Your task to perform on an android device: turn off improve location accuracy Image 0: 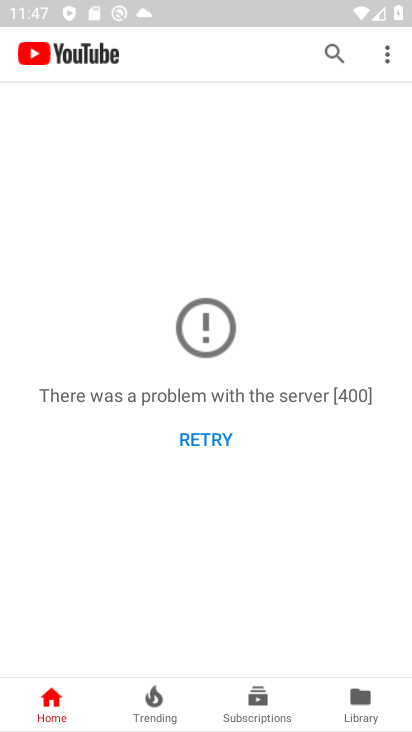
Step 0: press home button
Your task to perform on an android device: turn off improve location accuracy Image 1: 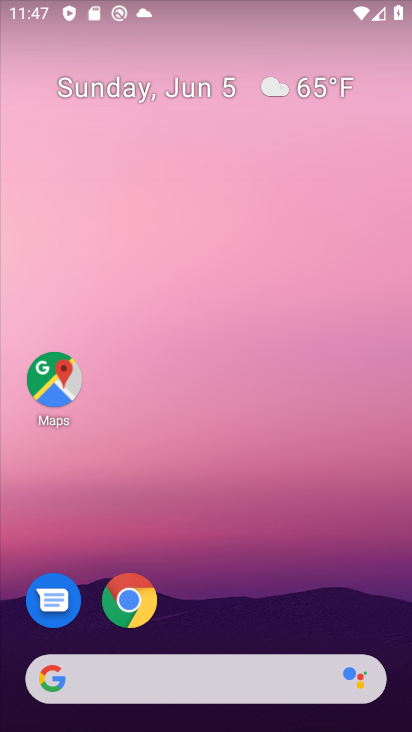
Step 1: drag from (399, 699) to (350, 145)
Your task to perform on an android device: turn off improve location accuracy Image 2: 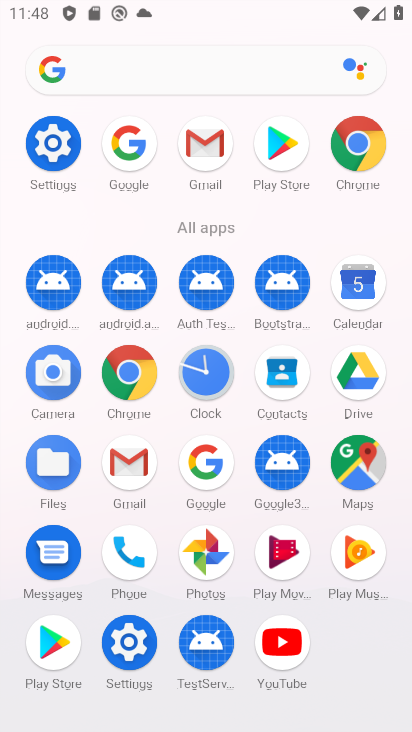
Step 2: click (133, 634)
Your task to perform on an android device: turn off improve location accuracy Image 3: 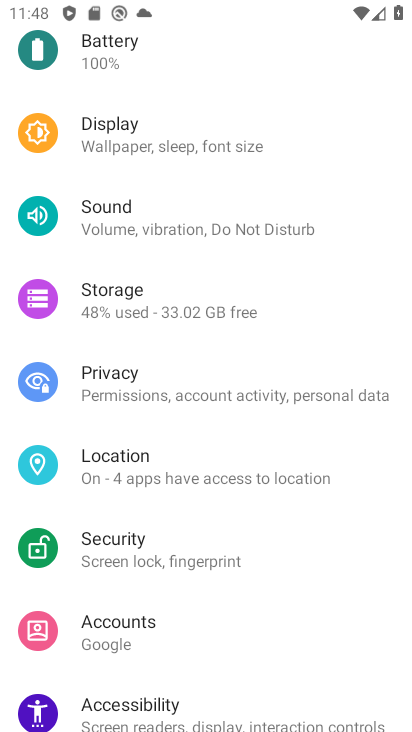
Step 3: drag from (265, 618) to (283, 273)
Your task to perform on an android device: turn off improve location accuracy Image 4: 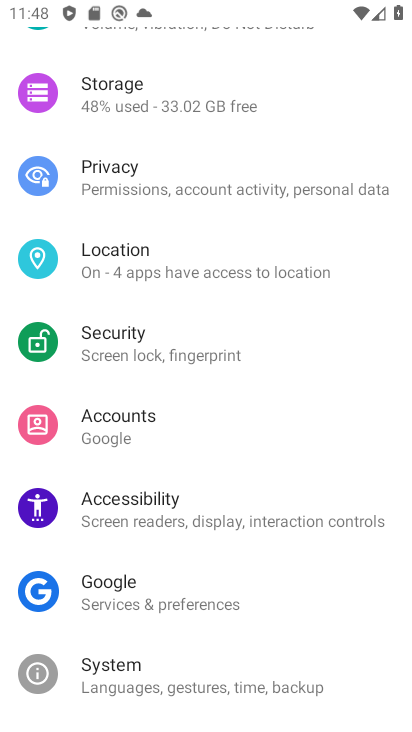
Step 4: drag from (302, 675) to (294, 236)
Your task to perform on an android device: turn off improve location accuracy Image 5: 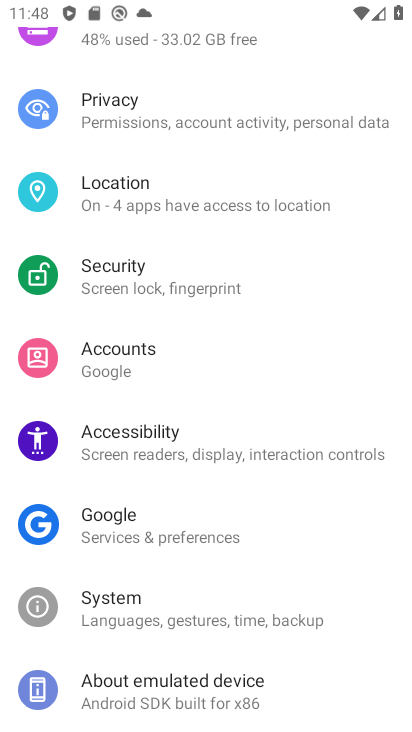
Step 5: click (167, 200)
Your task to perform on an android device: turn off improve location accuracy Image 6: 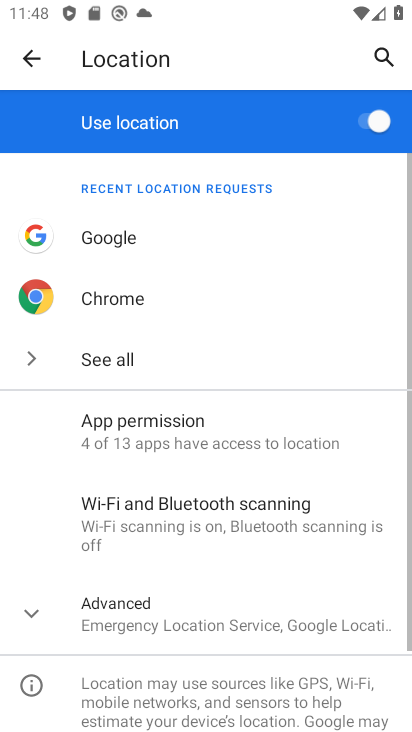
Step 6: click (30, 616)
Your task to perform on an android device: turn off improve location accuracy Image 7: 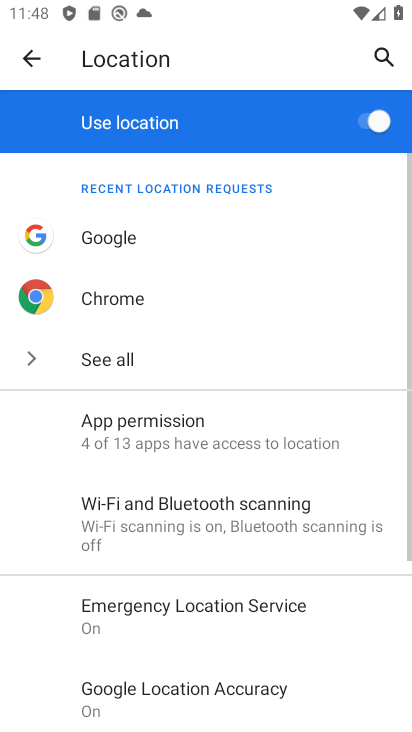
Step 7: drag from (372, 700) to (370, 339)
Your task to perform on an android device: turn off improve location accuracy Image 8: 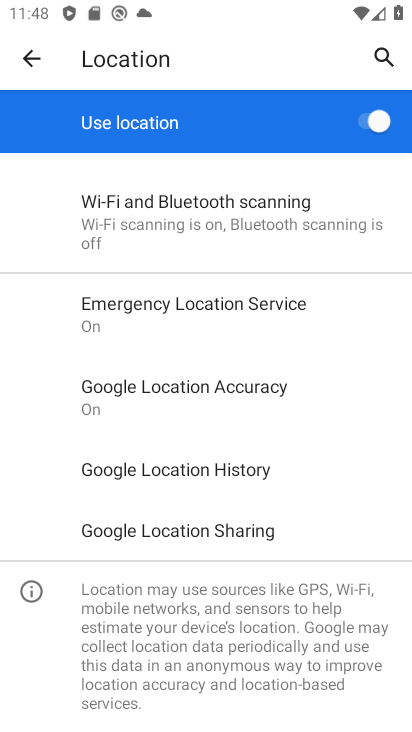
Step 8: click (211, 386)
Your task to perform on an android device: turn off improve location accuracy Image 9: 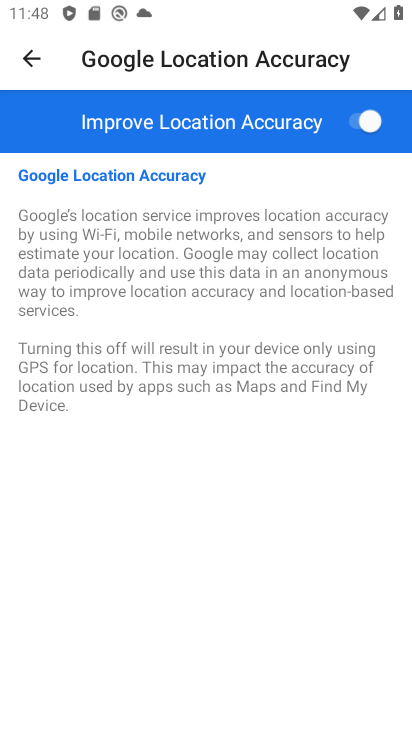
Step 9: click (346, 125)
Your task to perform on an android device: turn off improve location accuracy Image 10: 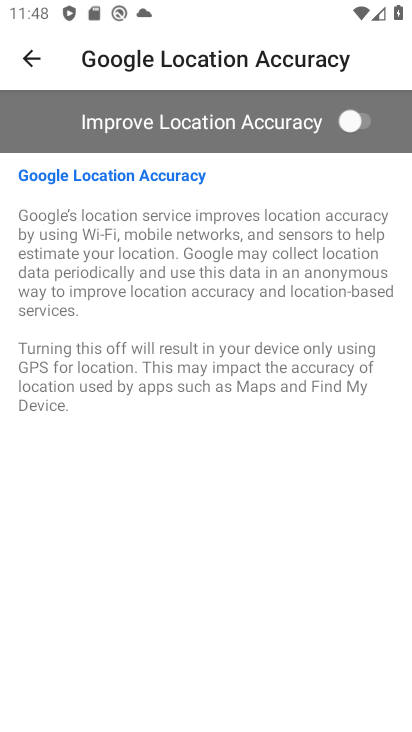
Step 10: task complete